Your task to perform on an android device: Go to Amazon Image 0: 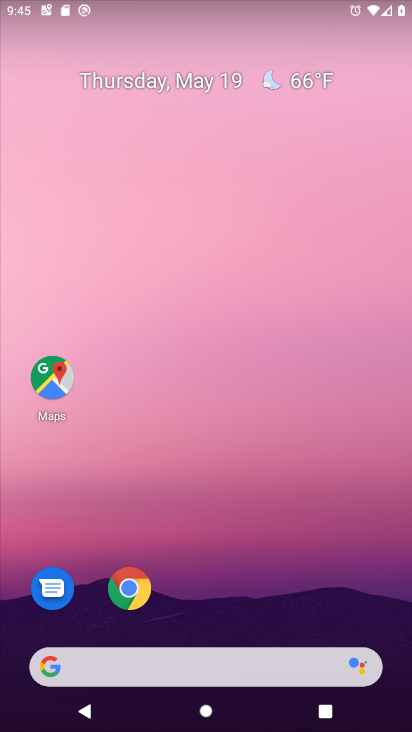
Step 0: drag from (370, 595) to (347, 276)
Your task to perform on an android device: Go to Amazon Image 1: 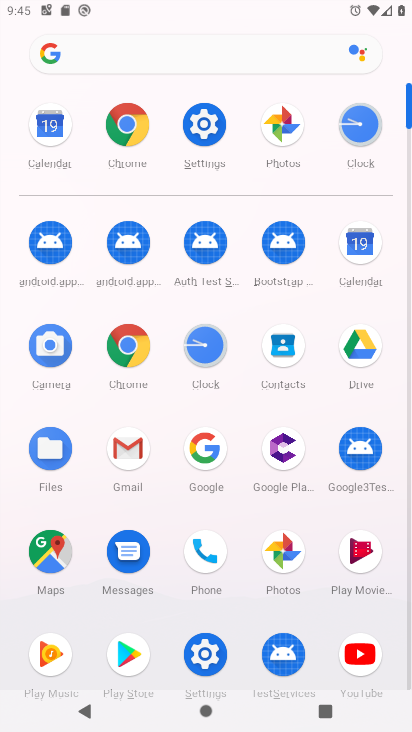
Step 1: click (147, 358)
Your task to perform on an android device: Go to Amazon Image 2: 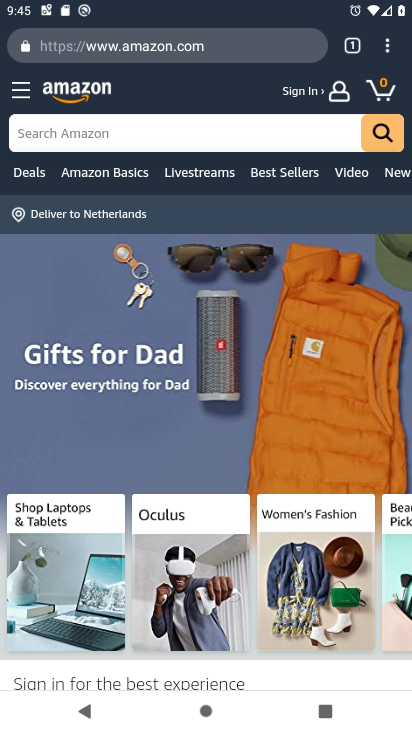
Step 2: task complete